Your task to perform on an android device: clear all cookies in the chrome app Image 0: 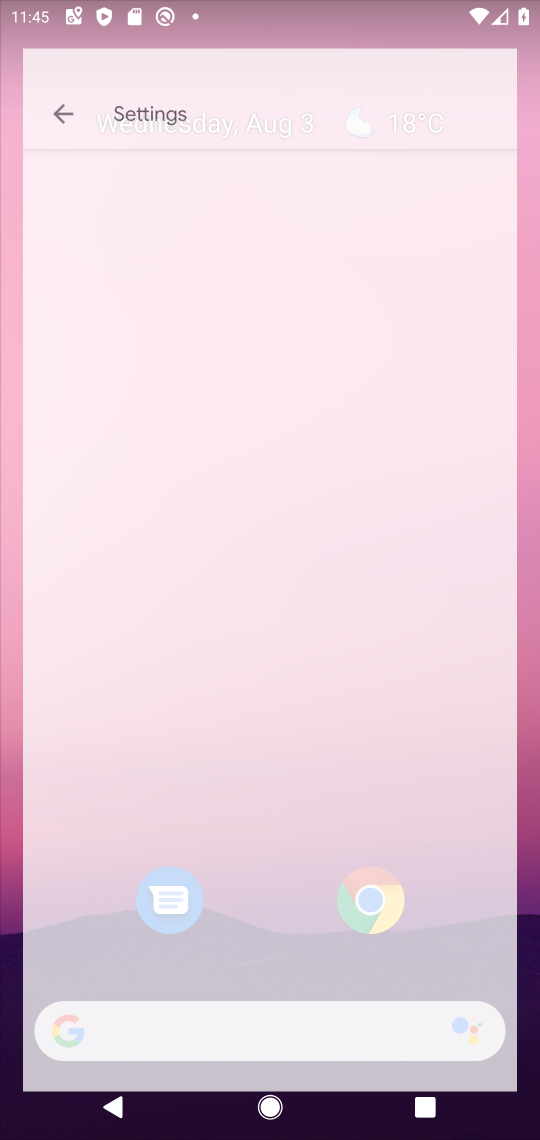
Step 0: press home button
Your task to perform on an android device: clear all cookies in the chrome app Image 1: 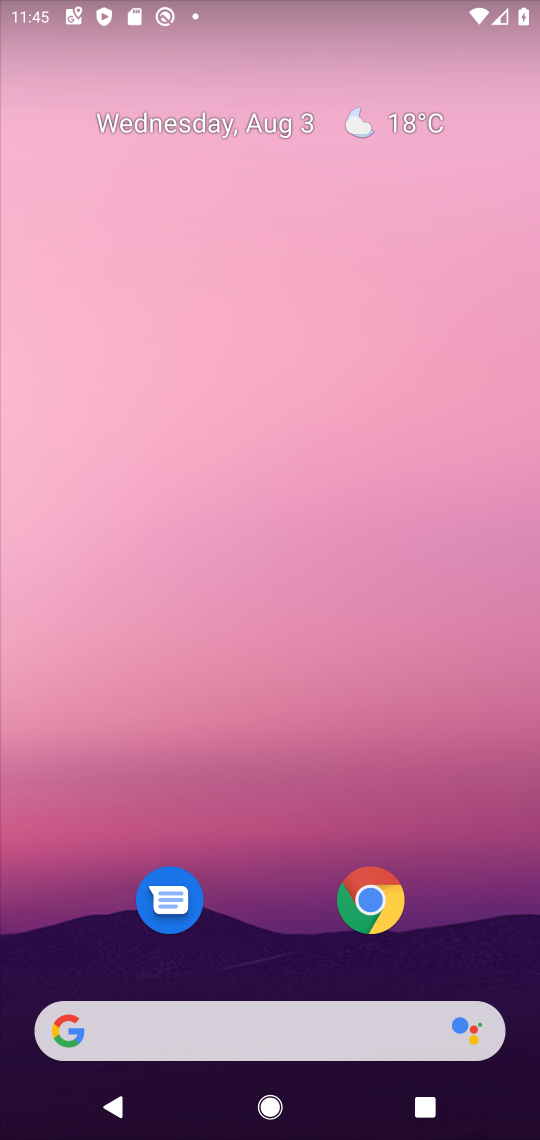
Step 1: click (368, 890)
Your task to perform on an android device: clear all cookies in the chrome app Image 2: 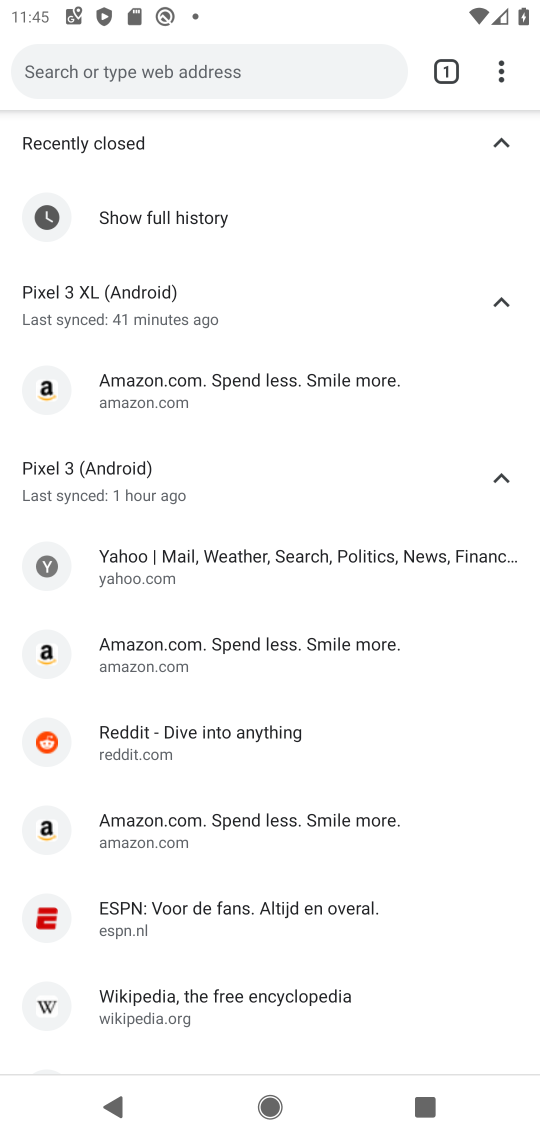
Step 2: drag from (502, 61) to (248, 602)
Your task to perform on an android device: clear all cookies in the chrome app Image 3: 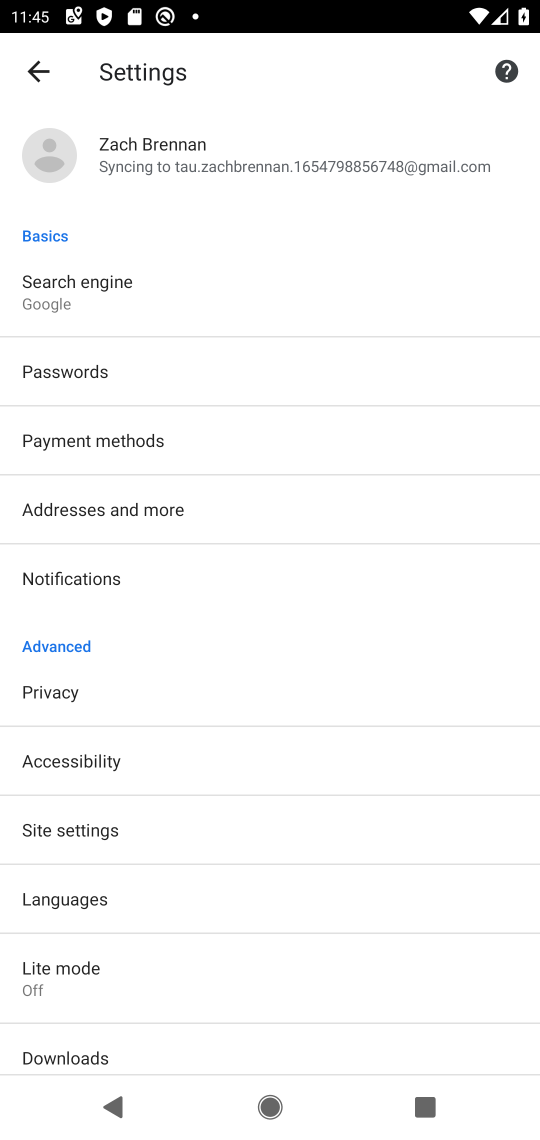
Step 3: click (146, 686)
Your task to perform on an android device: clear all cookies in the chrome app Image 4: 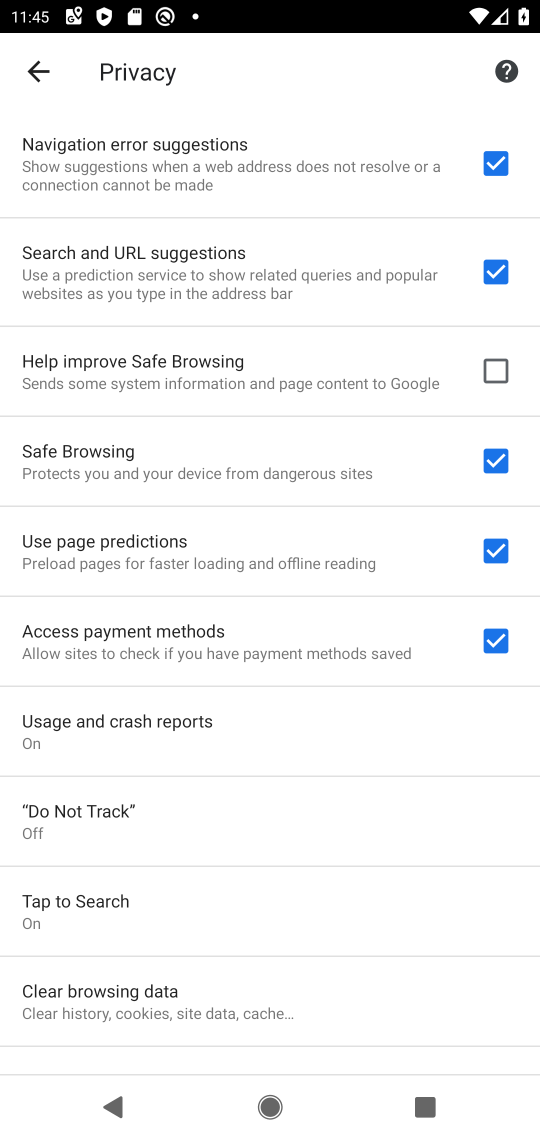
Step 4: click (139, 1011)
Your task to perform on an android device: clear all cookies in the chrome app Image 5: 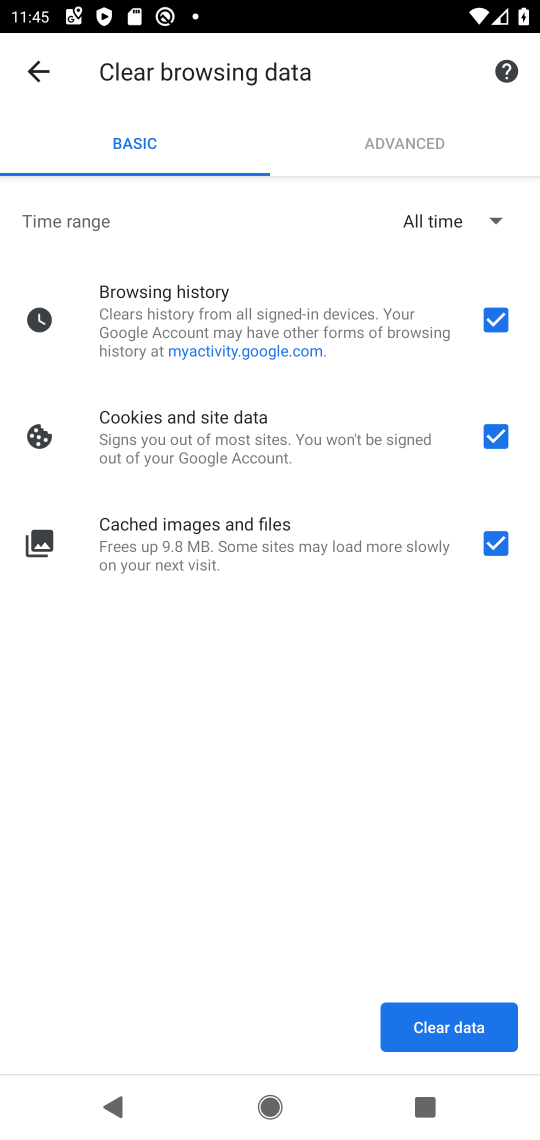
Step 5: click (486, 314)
Your task to perform on an android device: clear all cookies in the chrome app Image 6: 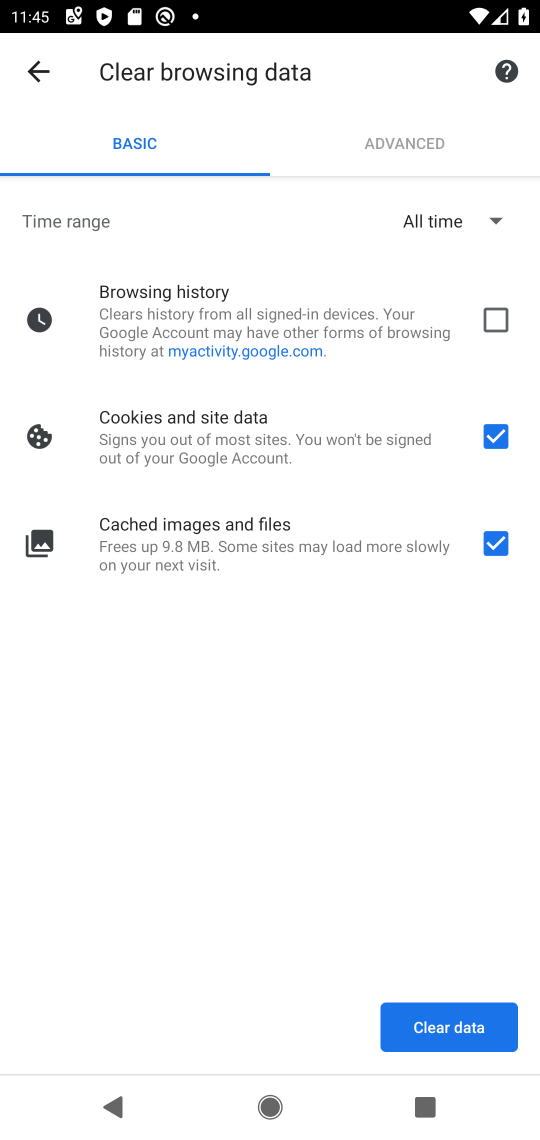
Step 6: click (507, 542)
Your task to perform on an android device: clear all cookies in the chrome app Image 7: 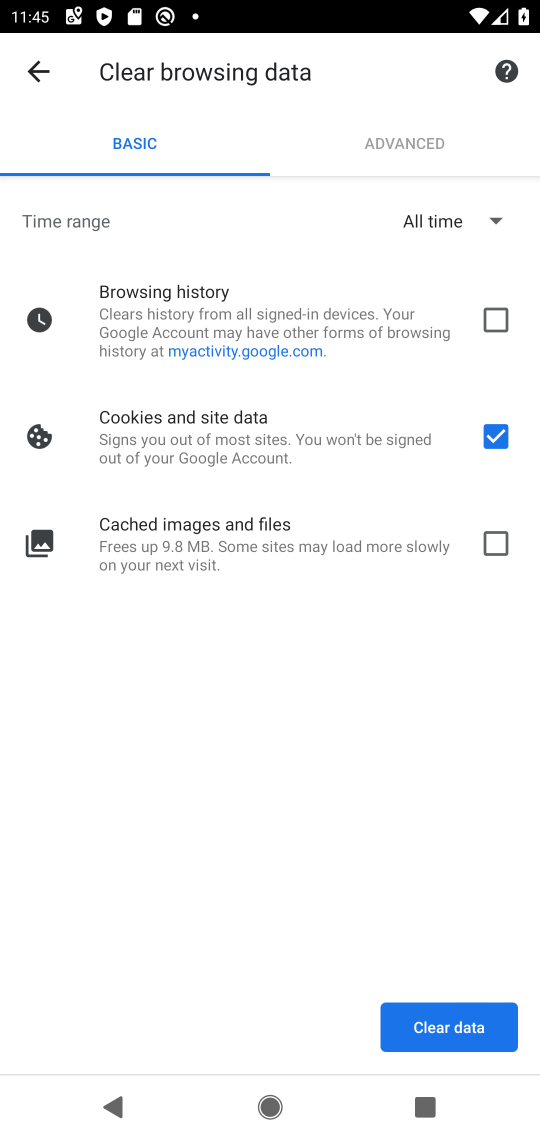
Step 7: click (478, 1030)
Your task to perform on an android device: clear all cookies in the chrome app Image 8: 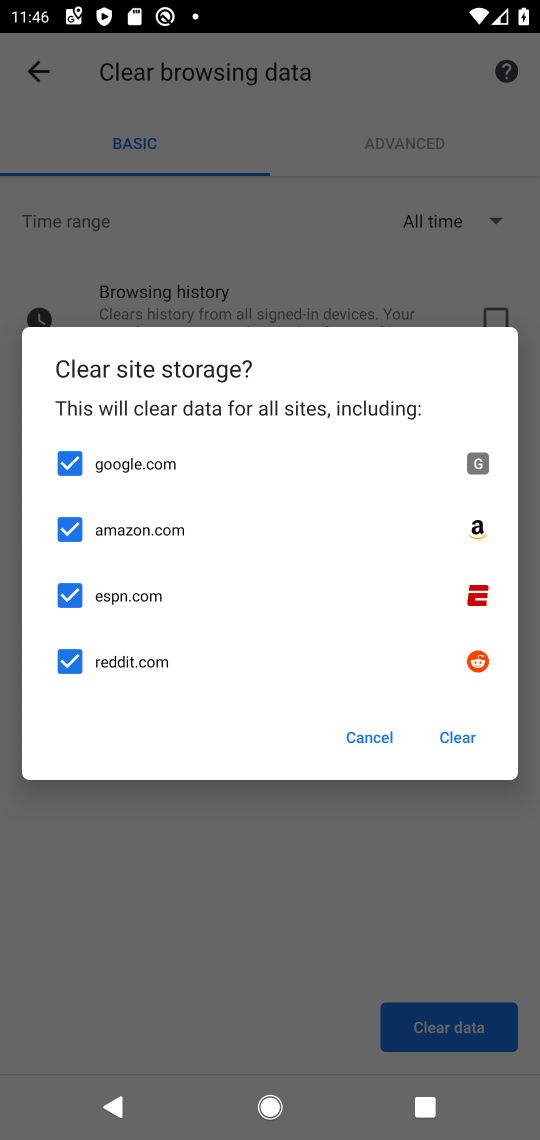
Step 8: click (462, 731)
Your task to perform on an android device: clear all cookies in the chrome app Image 9: 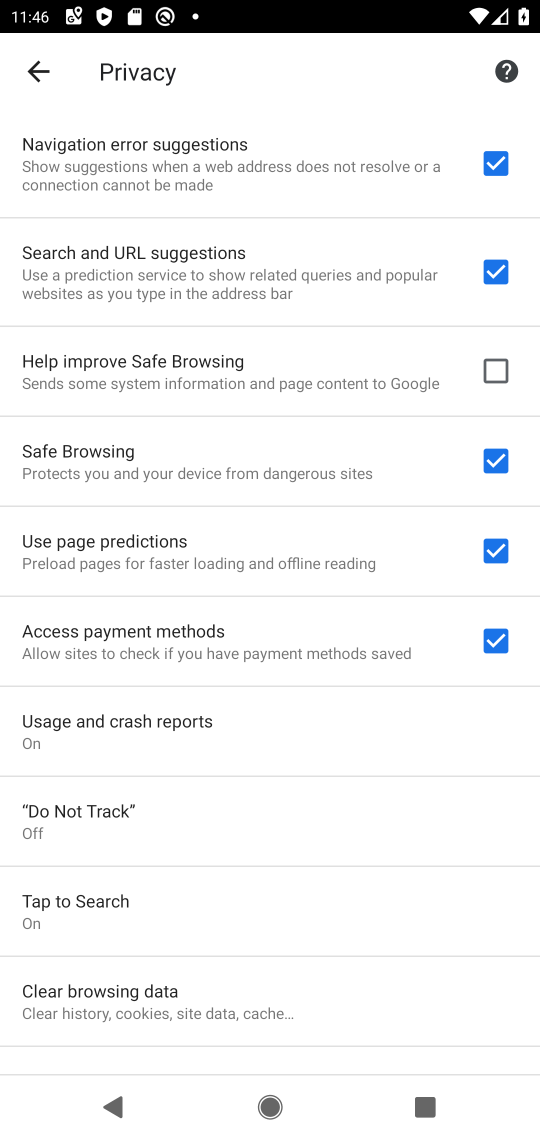
Step 9: task complete